Your task to perform on an android device: turn off javascript in the chrome app Image 0: 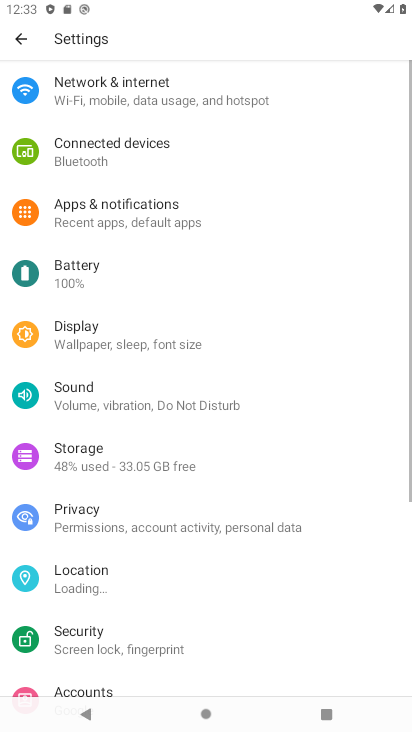
Step 0: press home button
Your task to perform on an android device: turn off javascript in the chrome app Image 1: 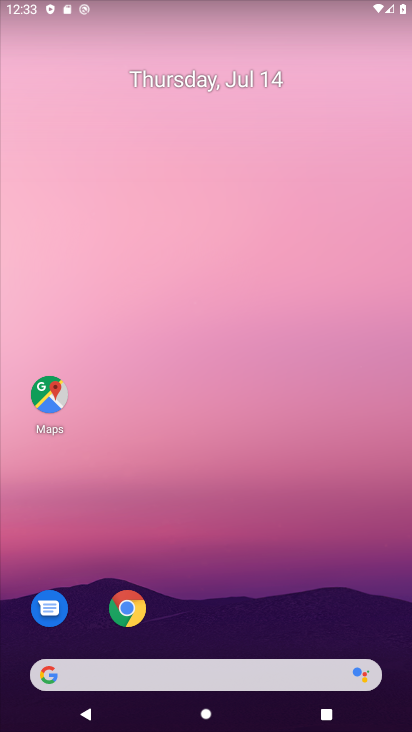
Step 1: drag from (173, 617) to (138, 0)
Your task to perform on an android device: turn off javascript in the chrome app Image 2: 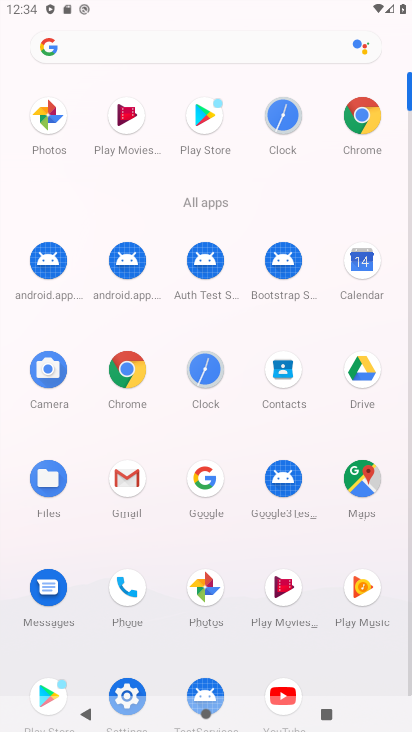
Step 2: click (146, 367)
Your task to perform on an android device: turn off javascript in the chrome app Image 3: 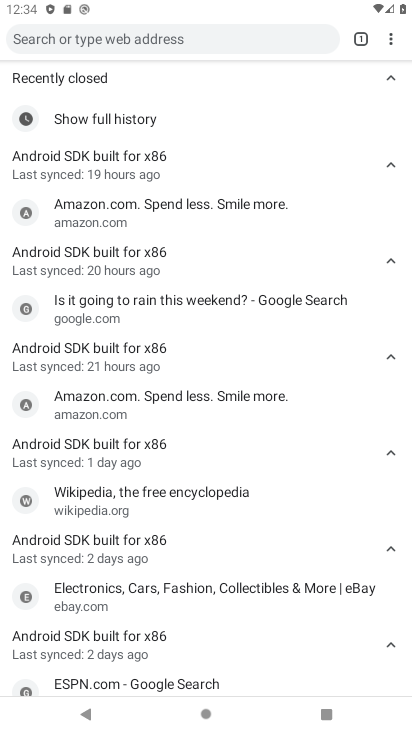
Step 3: drag from (394, 35) to (246, 326)
Your task to perform on an android device: turn off javascript in the chrome app Image 4: 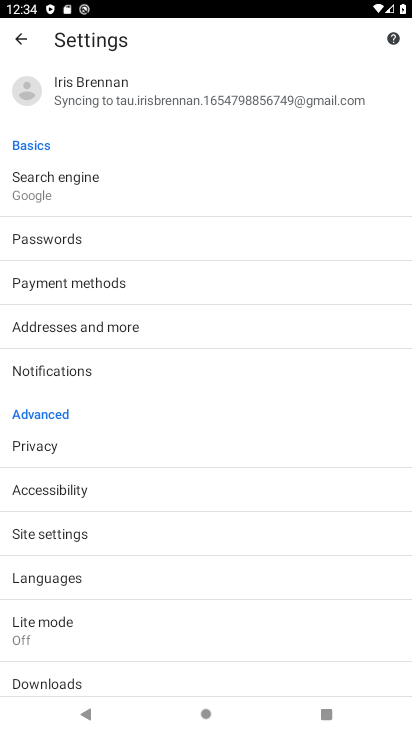
Step 4: click (64, 537)
Your task to perform on an android device: turn off javascript in the chrome app Image 5: 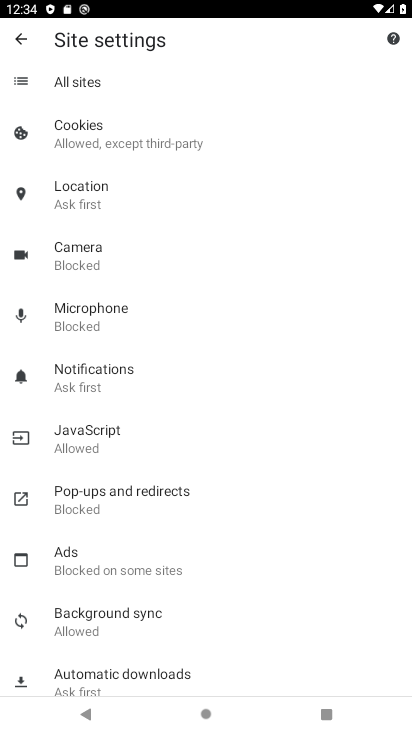
Step 5: click (61, 435)
Your task to perform on an android device: turn off javascript in the chrome app Image 6: 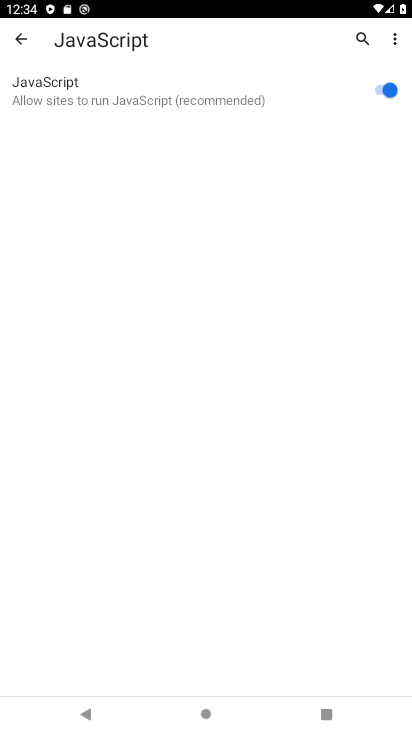
Step 6: click (177, 95)
Your task to perform on an android device: turn off javascript in the chrome app Image 7: 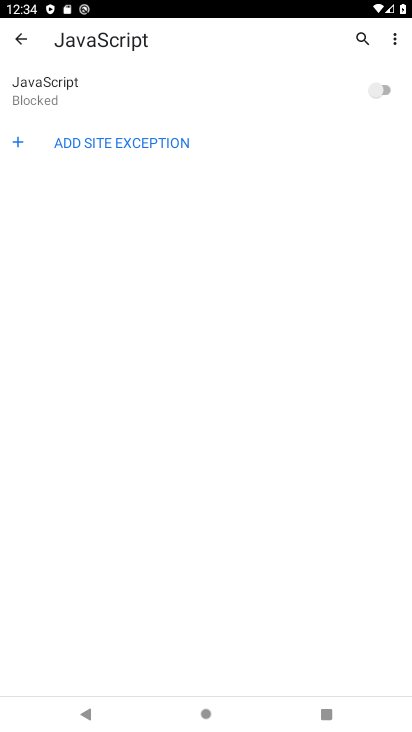
Step 7: task complete